Your task to perform on an android device: turn off priority inbox in the gmail app Image 0: 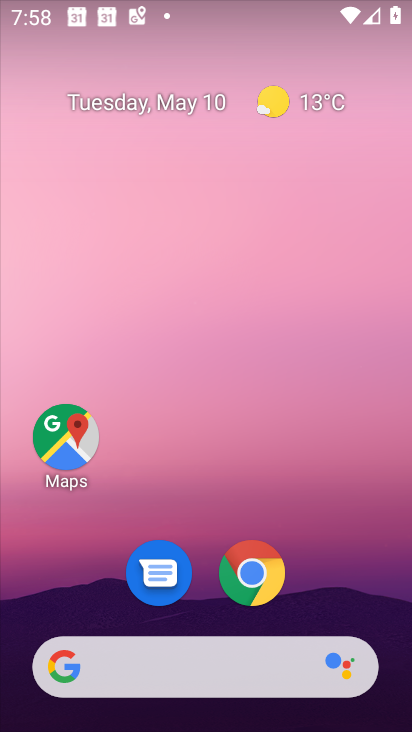
Step 0: drag from (340, 522) to (192, 15)
Your task to perform on an android device: turn off priority inbox in the gmail app Image 1: 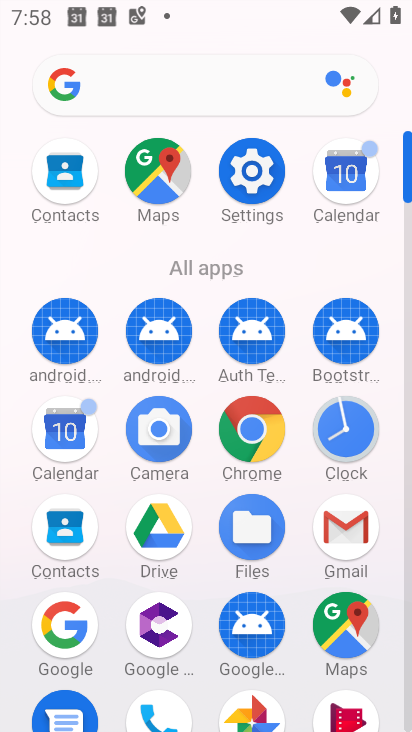
Step 1: click (343, 519)
Your task to perform on an android device: turn off priority inbox in the gmail app Image 2: 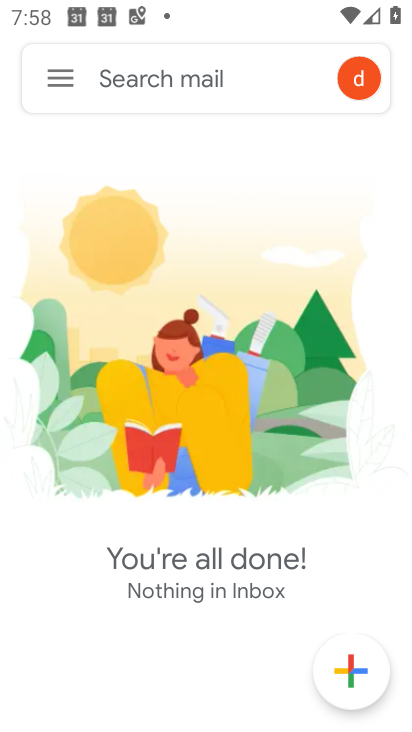
Step 2: click (61, 84)
Your task to perform on an android device: turn off priority inbox in the gmail app Image 3: 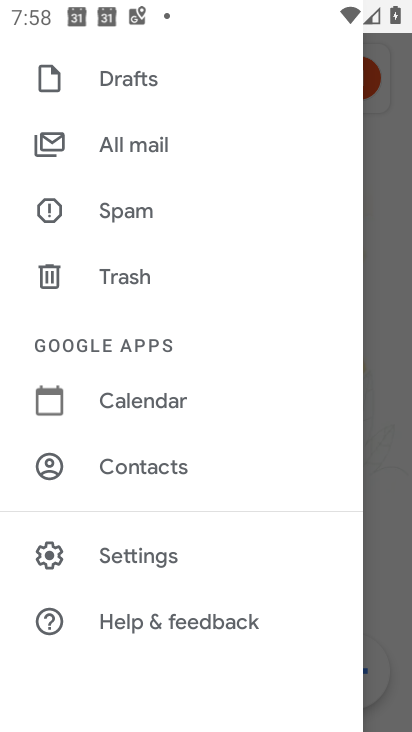
Step 3: click (123, 558)
Your task to perform on an android device: turn off priority inbox in the gmail app Image 4: 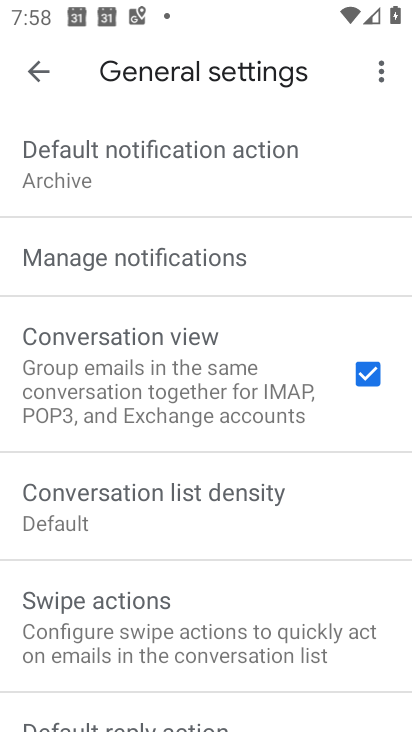
Step 4: click (48, 74)
Your task to perform on an android device: turn off priority inbox in the gmail app Image 5: 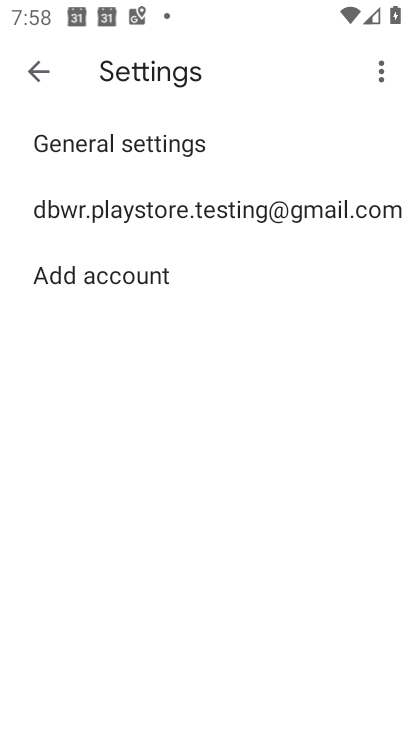
Step 5: click (123, 231)
Your task to perform on an android device: turn off priority inbox in the gmail app Image 6: 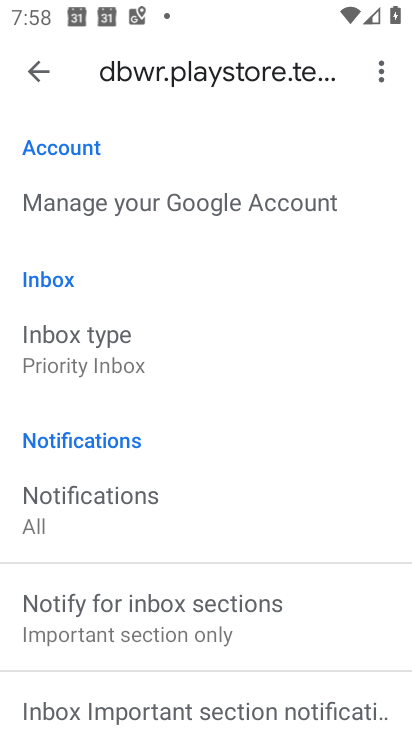
Step 6: click (86, 338)
Your task to perform on an android device: turn off priority inbox in the gmail app Image 7: 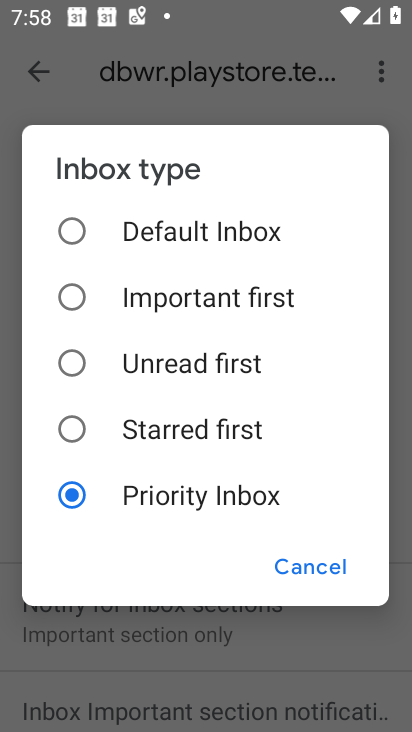
Step 7: click (71, 301)
Your task to perform on an android device: turn off priority inbox in the gmail app Image 8: 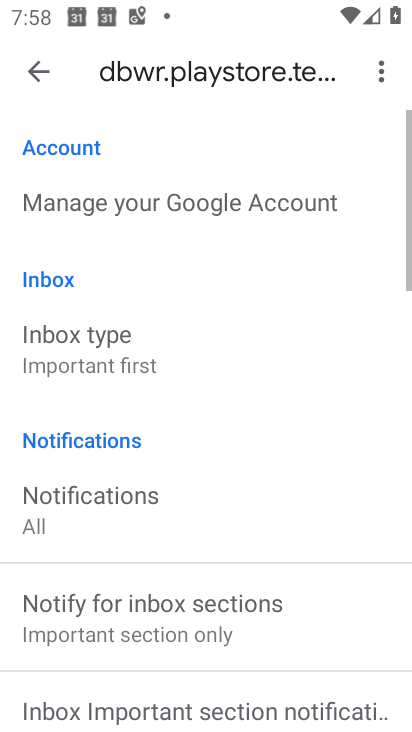
Step 8: task complete